Your task to perform on an android device: When is my next appointment? Image 0: 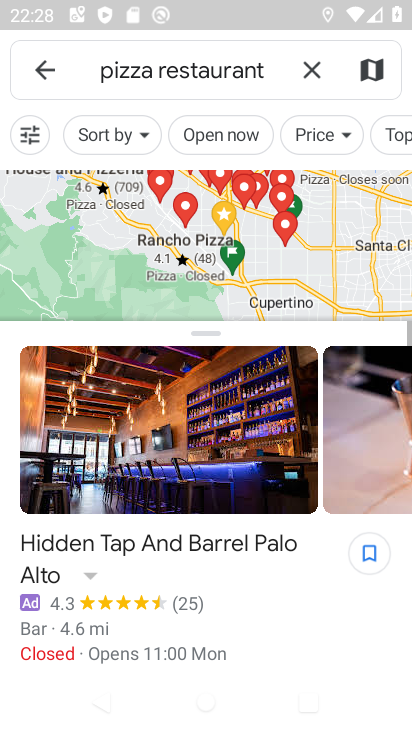
Step 0: press home button
Your task to perform on an android device: When is my next appointment? Image 1: 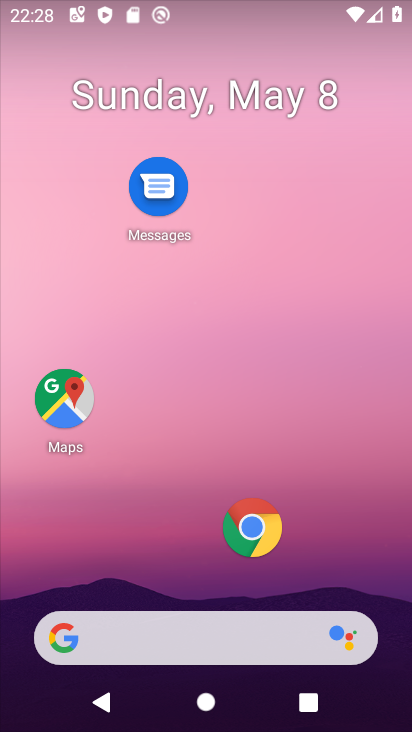
Step 1: drag from (200, 569) to (204, 68)
Your task to perform on an android device: When is my next appointment? Image 2: 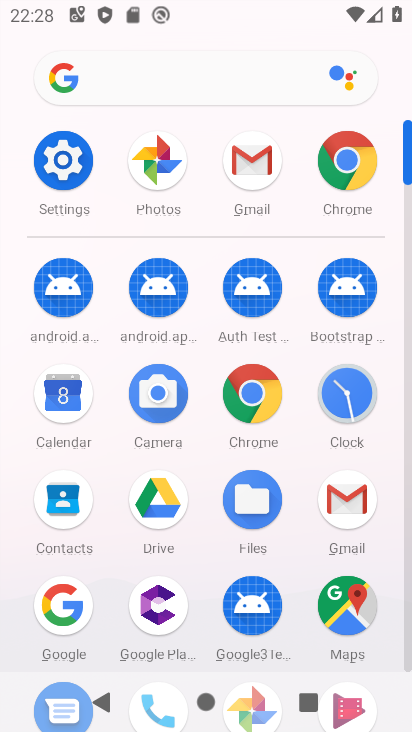
Step 2: click (50, 404)
Your task to perform on an android device: When is my next appointment? Image 3: 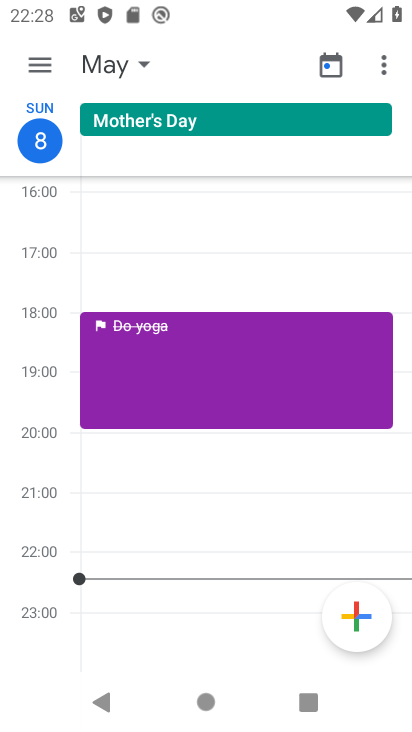
Step 3: click (136, 63)
Your task to perform on an android device: When is my next appointment? Image 4: 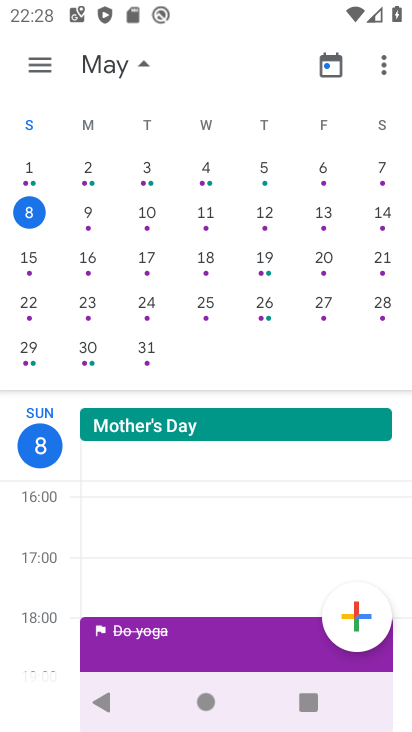
Step 4: drag from (350, 352) to (13, 366)
Your task to perform on an android device: When is my next appointment? Image 5: 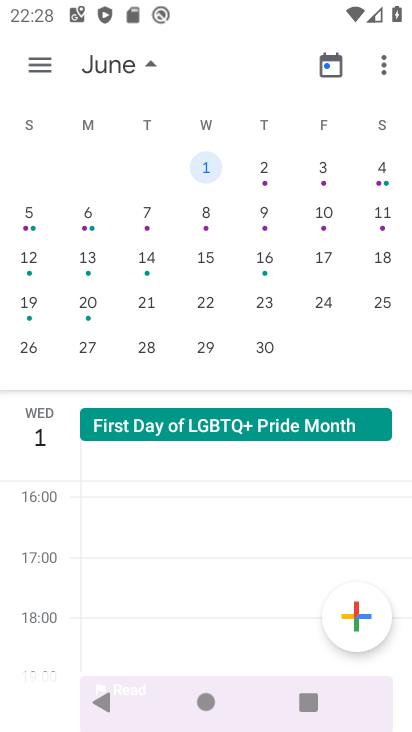
Step 5: drag from (50, 352) to (405, 310)
Your task to perform on an android device: When is my next appointment? Image 6: 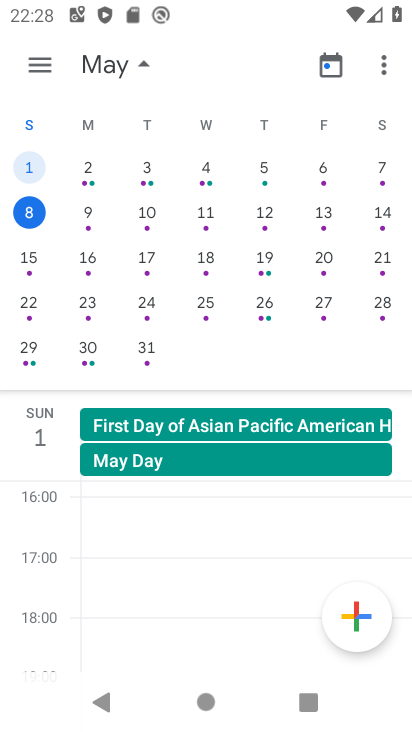
Step 6: click (149, 211)
Your task to perform on an android device: When is my next appointment? Image 7: 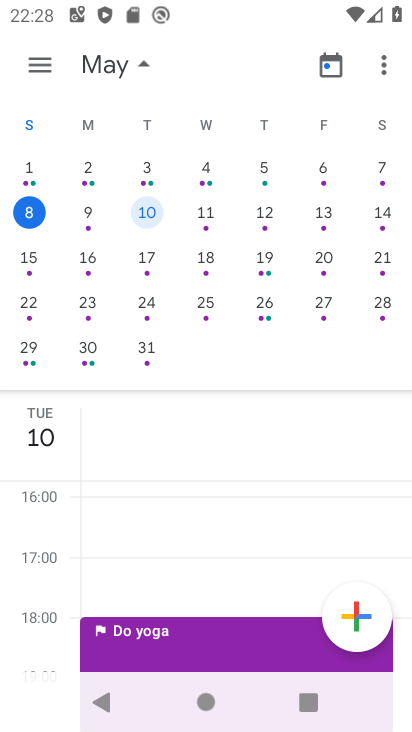
Step 7: task complete